Your task to perform on an android device: clear history in the chrome app Image 0: 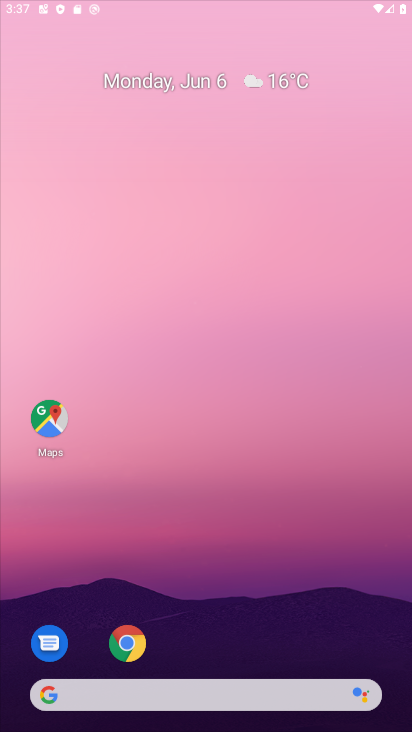
Step 0: click (186, 0)
Your task to perform on an android device: clear history in the chrome app Image 1: 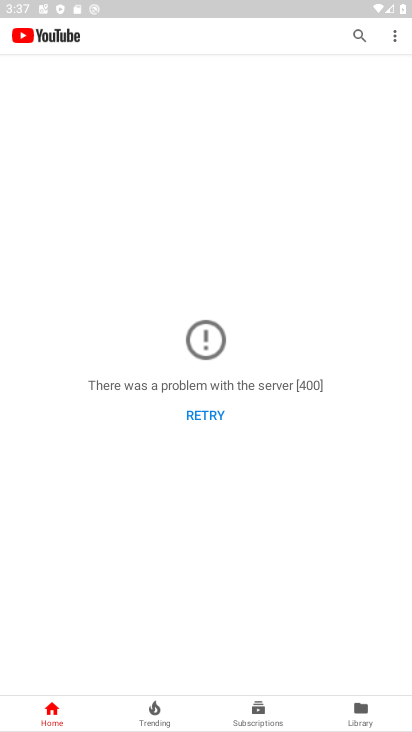
Step 1: press back button
Your task to perform on an android device: clear history in the chrome app Image 2: 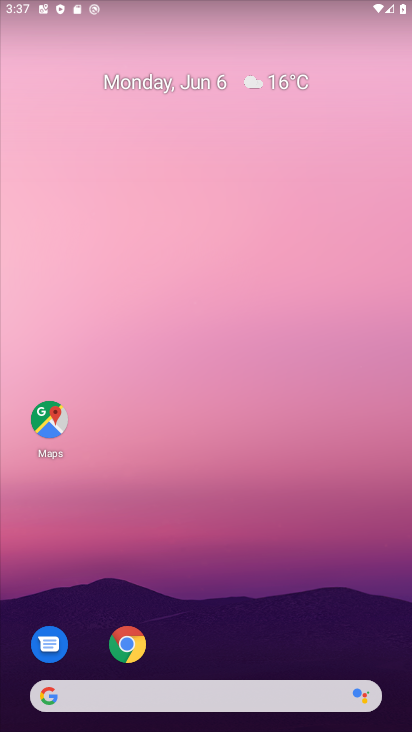
Step 2: drag from (208, 515) to (162, 48)
Your task to perform on an android device: clear history in the chrome app Image 3: 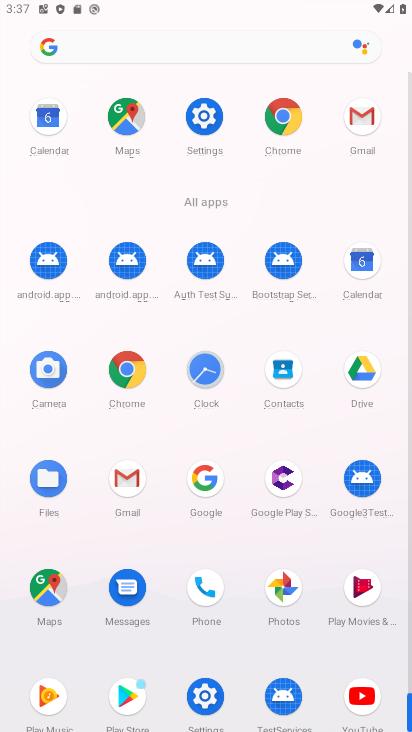
Step 3: drag from (0, 615) to (24, 246)
Your task to perform on an android device: clear history in the chrome app Image 4: 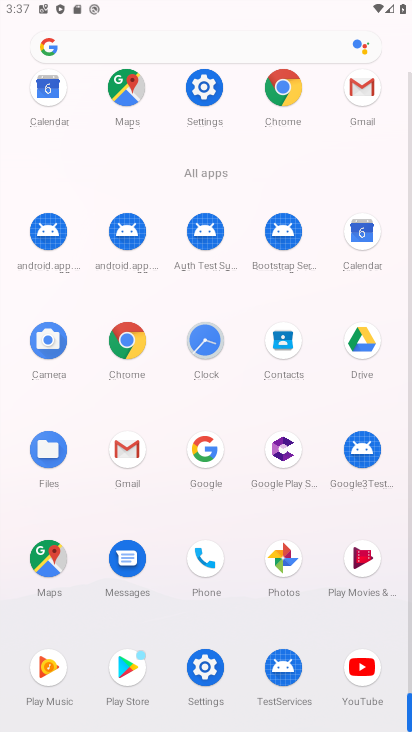
Step 4: click (123, 336)
Your task to perform on an android device: clear history in the chrome app Image 5: 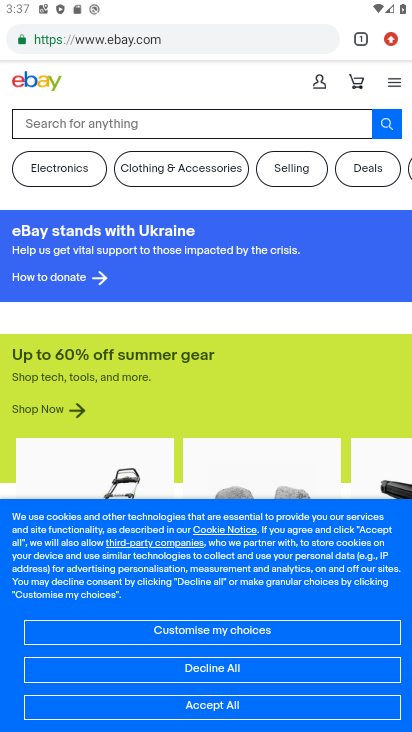
Step 5: drag from (382, 39) to (250, 274)
Your task to perform on an android device: clear history in the chrome app Image 6: 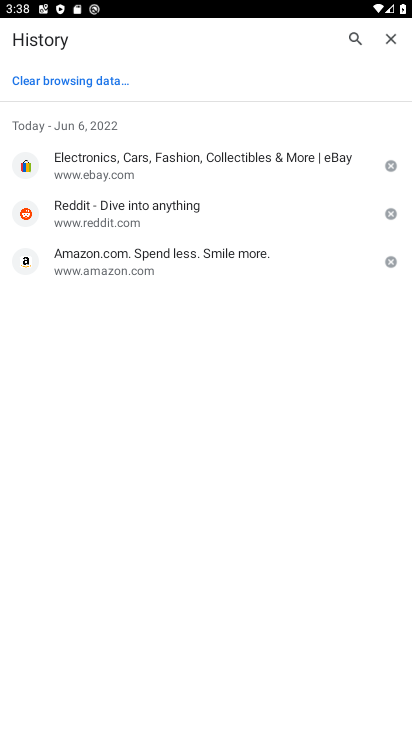
Step 6: click (65, 78)
Your task to perform on an android device: clear history in the chrome app Image 7: 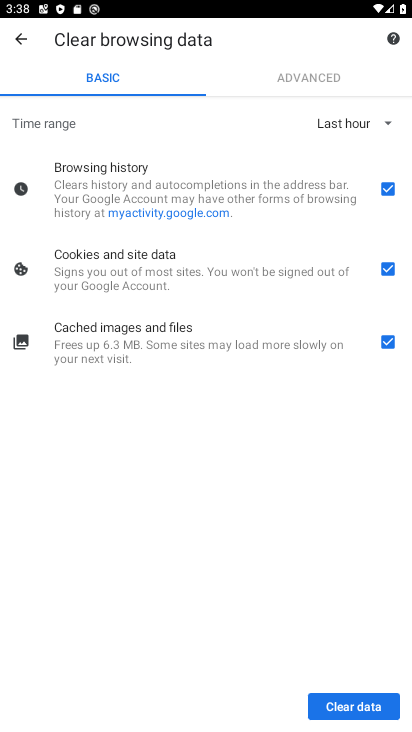
Step 7: click (374, 699)
Your task to perform on an android device: clear history in the chrome app Image 8: 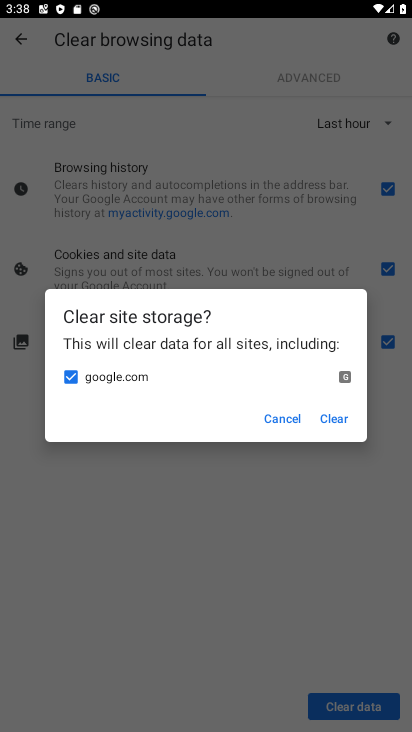
Step 8: click (322, 409)
Your task to perform on an android device: clear history in the chrome app Image 9: 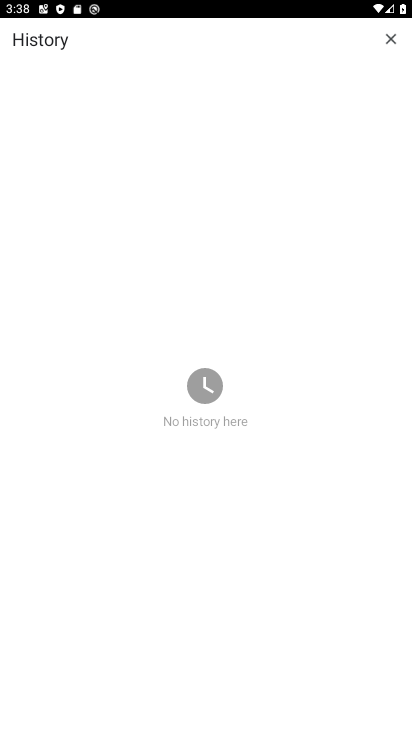
Step 9: task complete